Your task to perform on an android device: open app "Microsoft Excel" Image 0: 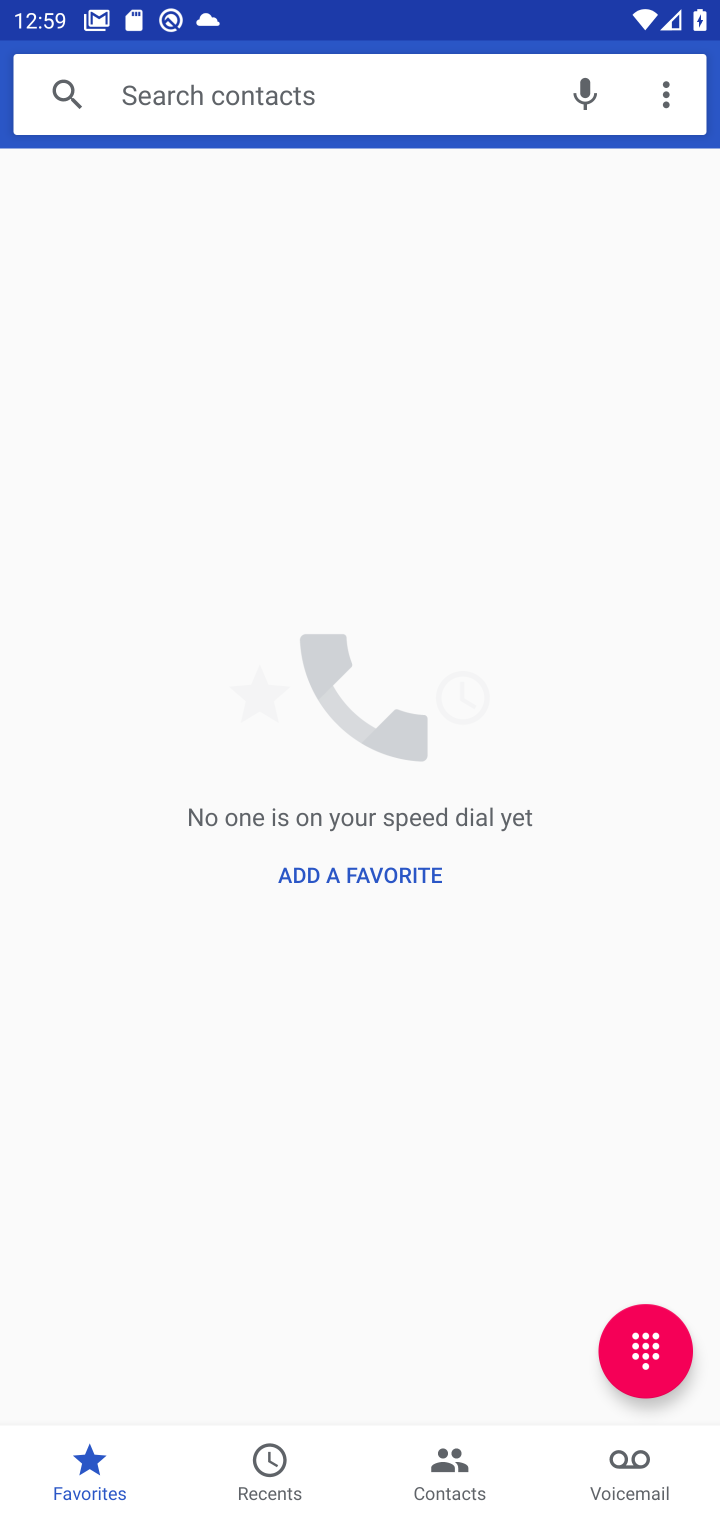
Step 0: press back button
Your task to perform on an android device: open app "Microsoft Excel" Image 1: 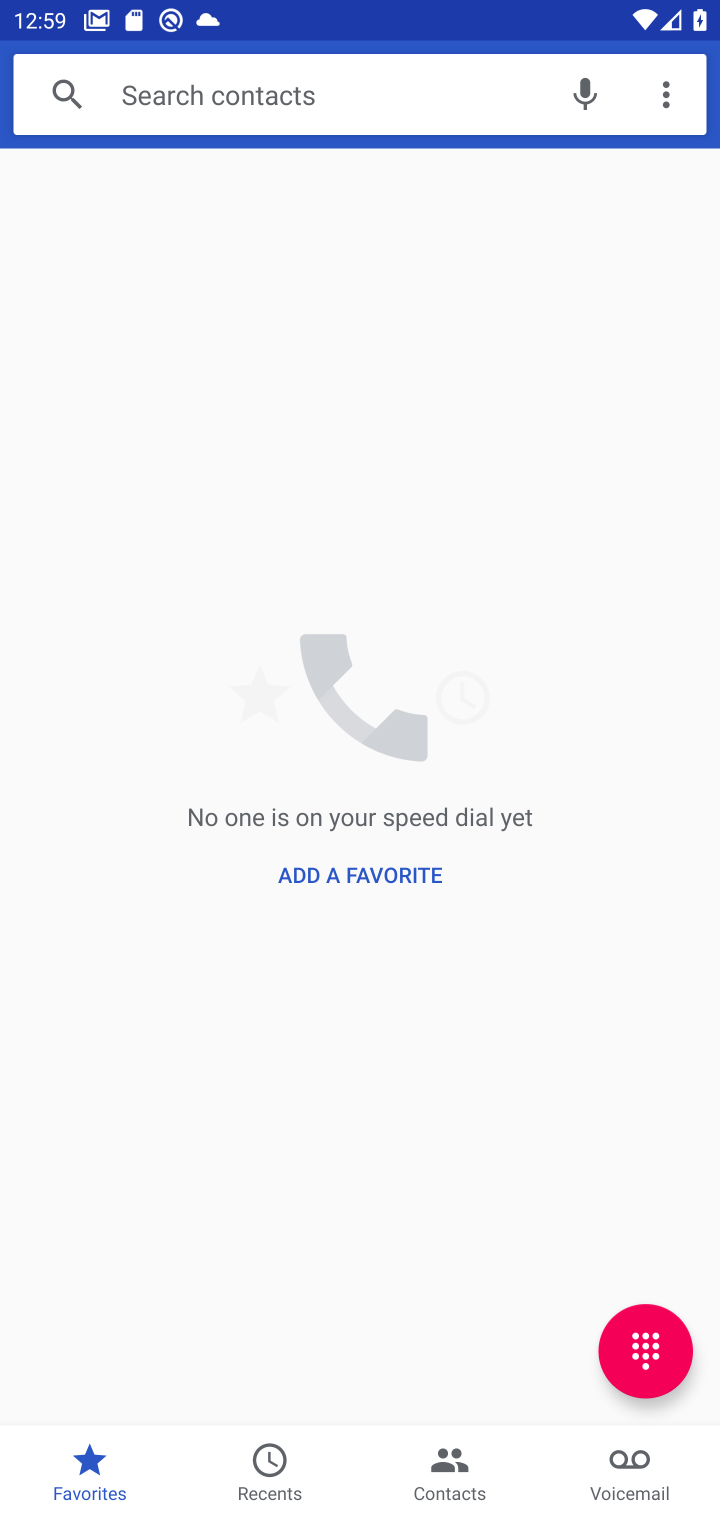
Step 1: press back button
Your task to perform on an android device: open app "Microsoft Excel" Image 2: 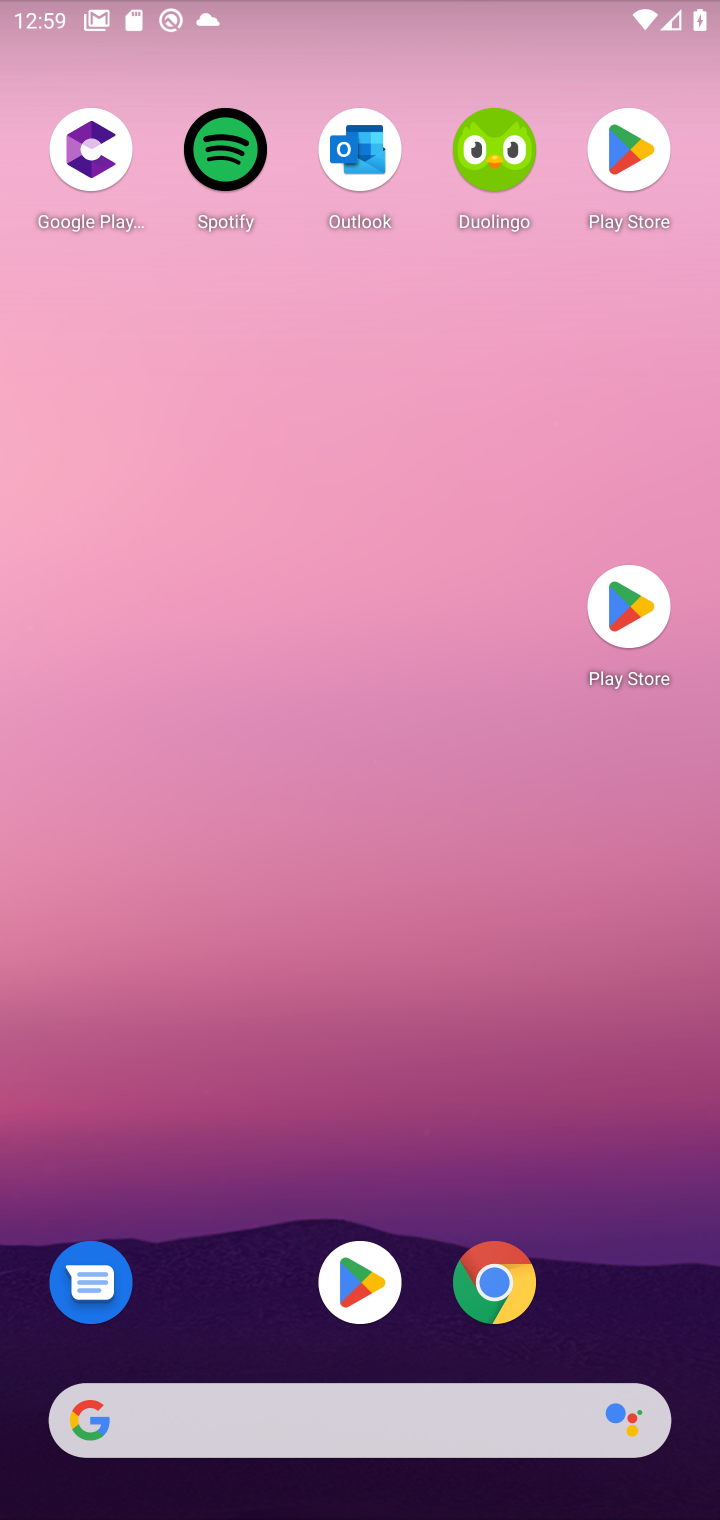
Step 2: press back button
Your task to perform on an android device: open app "Microsoft Excel" Image 3: 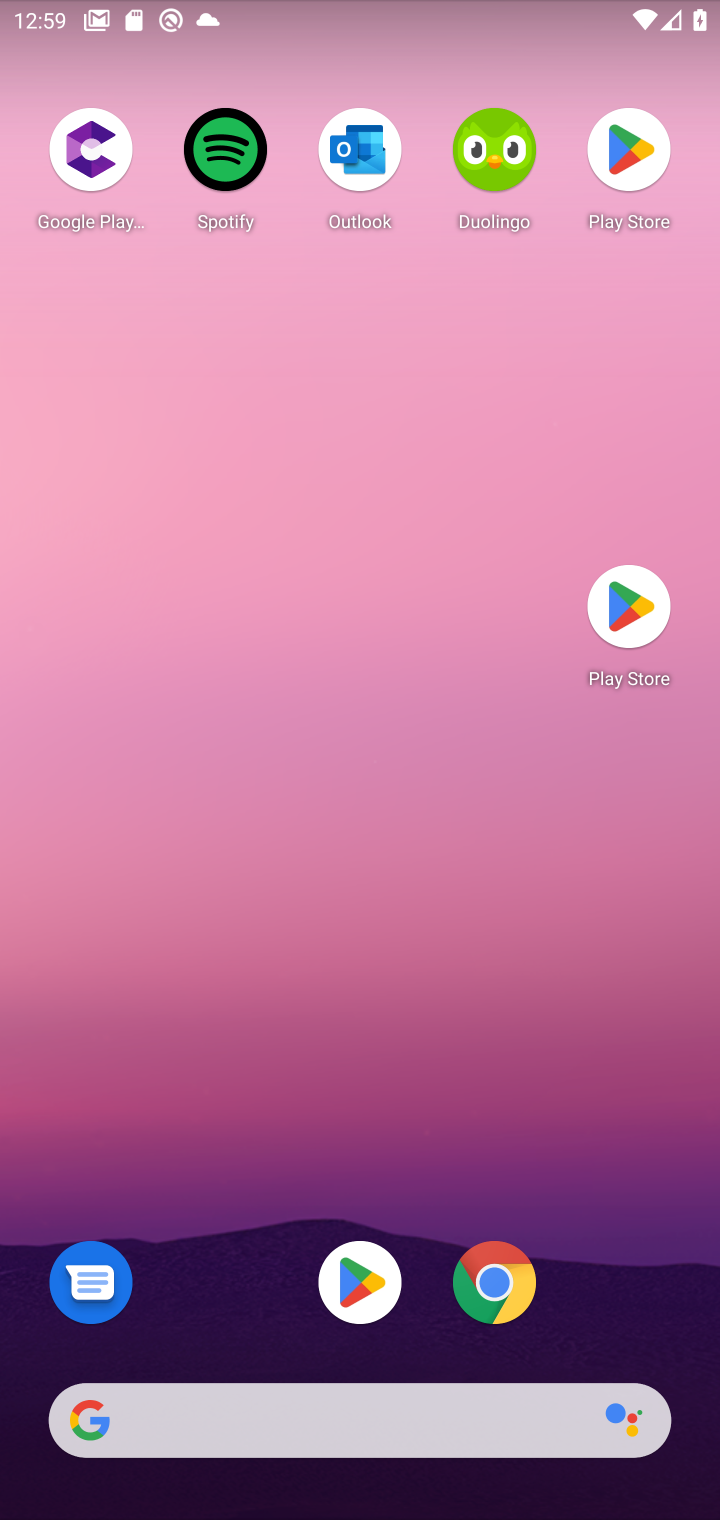
Step 3: press back button
Your task to perform on an android device: open app "Microsoft Excel" Image 4: 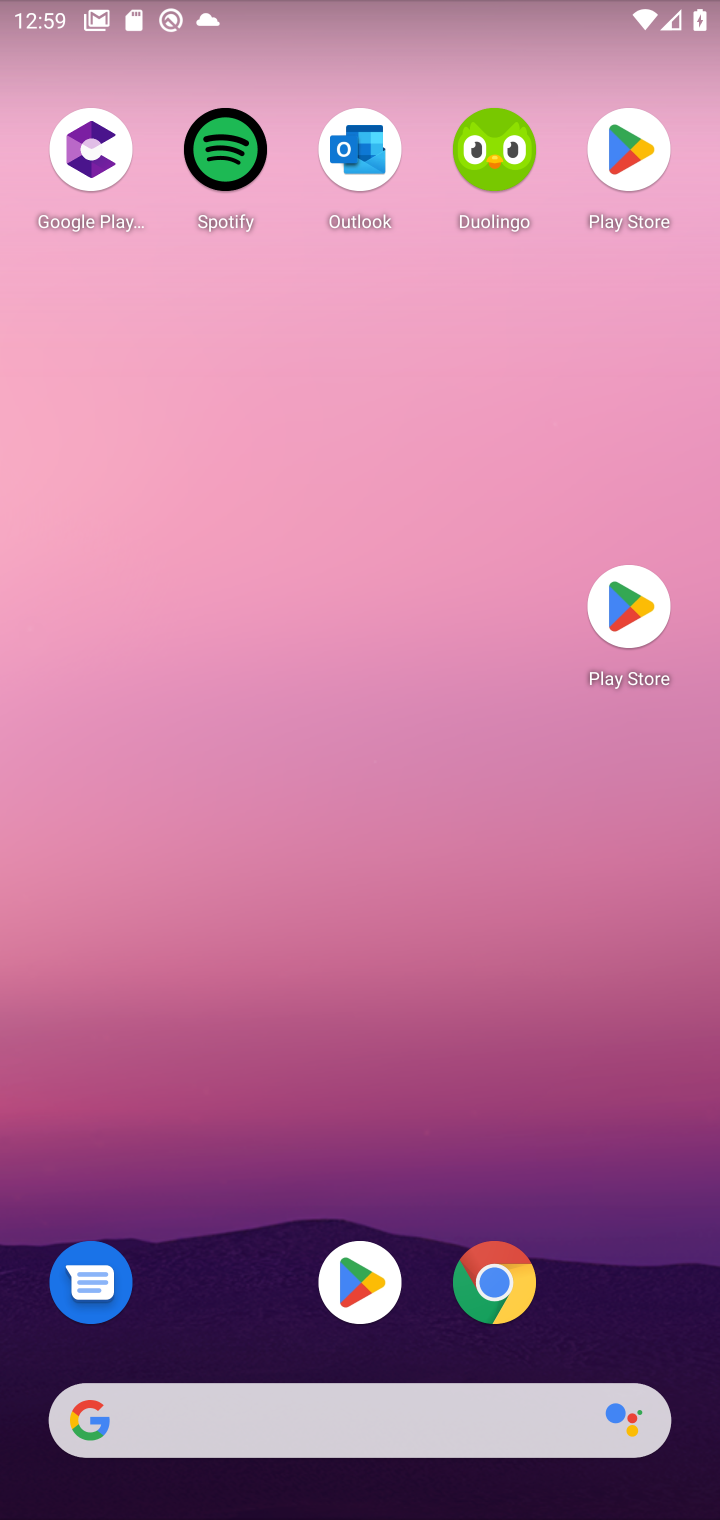
Step 4: press back button
Your task to perform on an android device: open app "Microsoft Excel" Image 5: 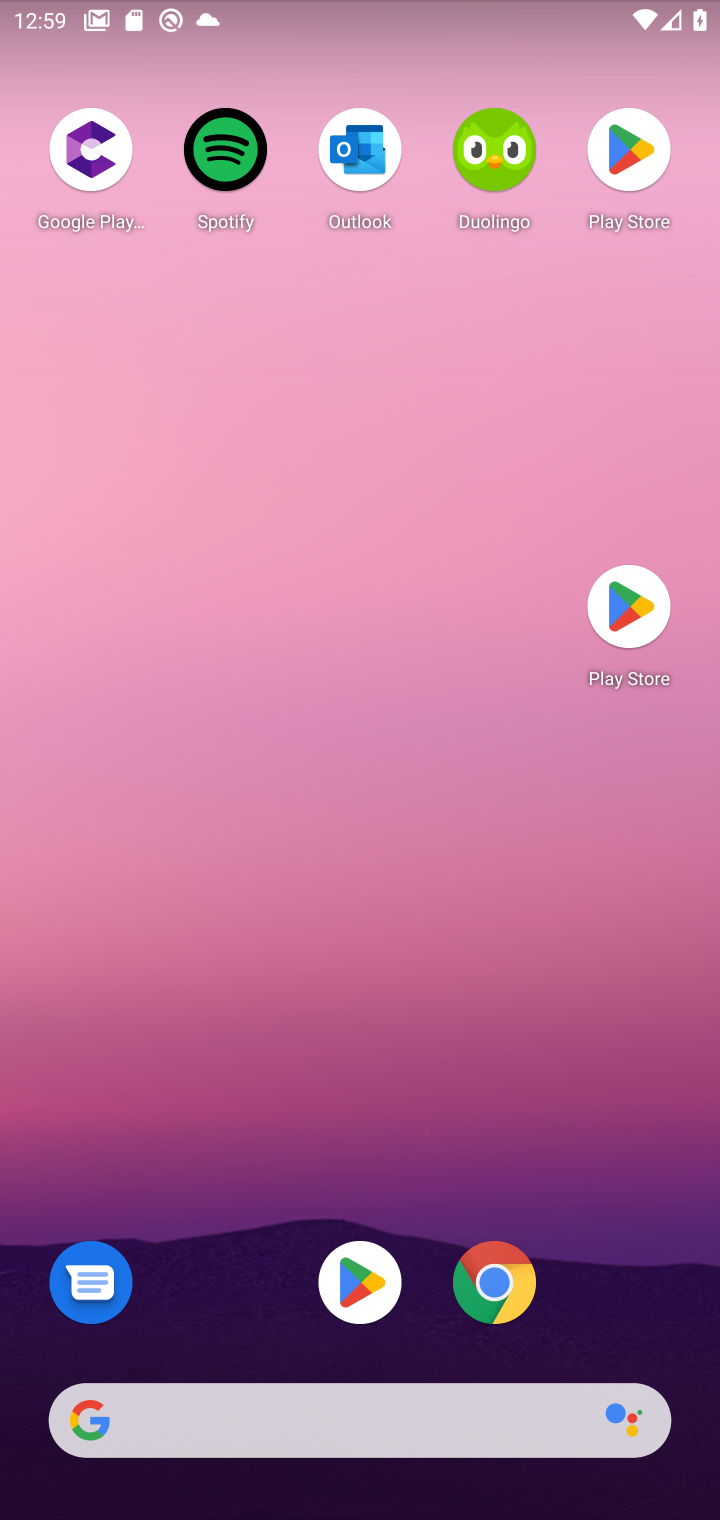
Step 5: drag from (314, 839) to (289, 54)
Your task to perform on an android device: open app "Microsoft Excel" Image 6: 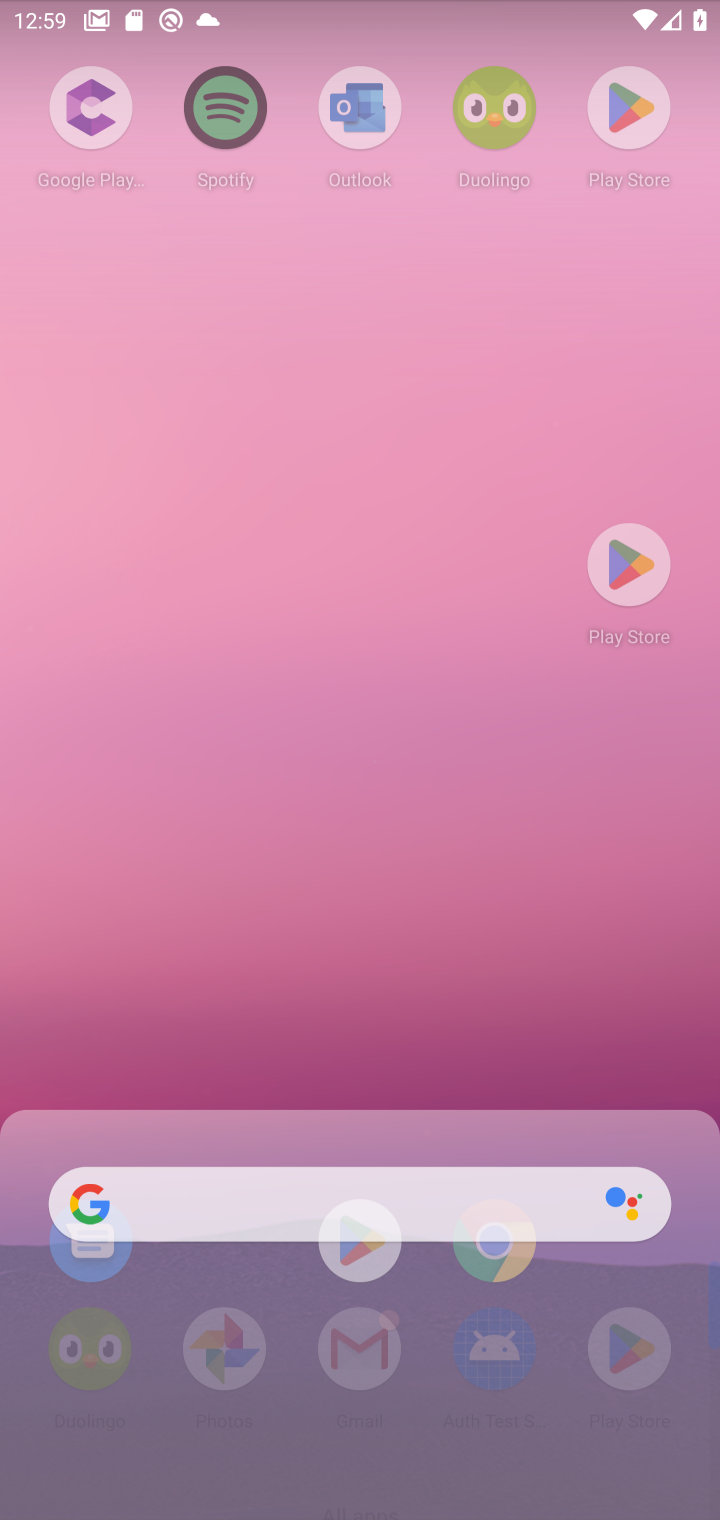
Step 6: click (396, 315)
Your task to perform on an android device: open app "Microsoft Excel" Image 7: 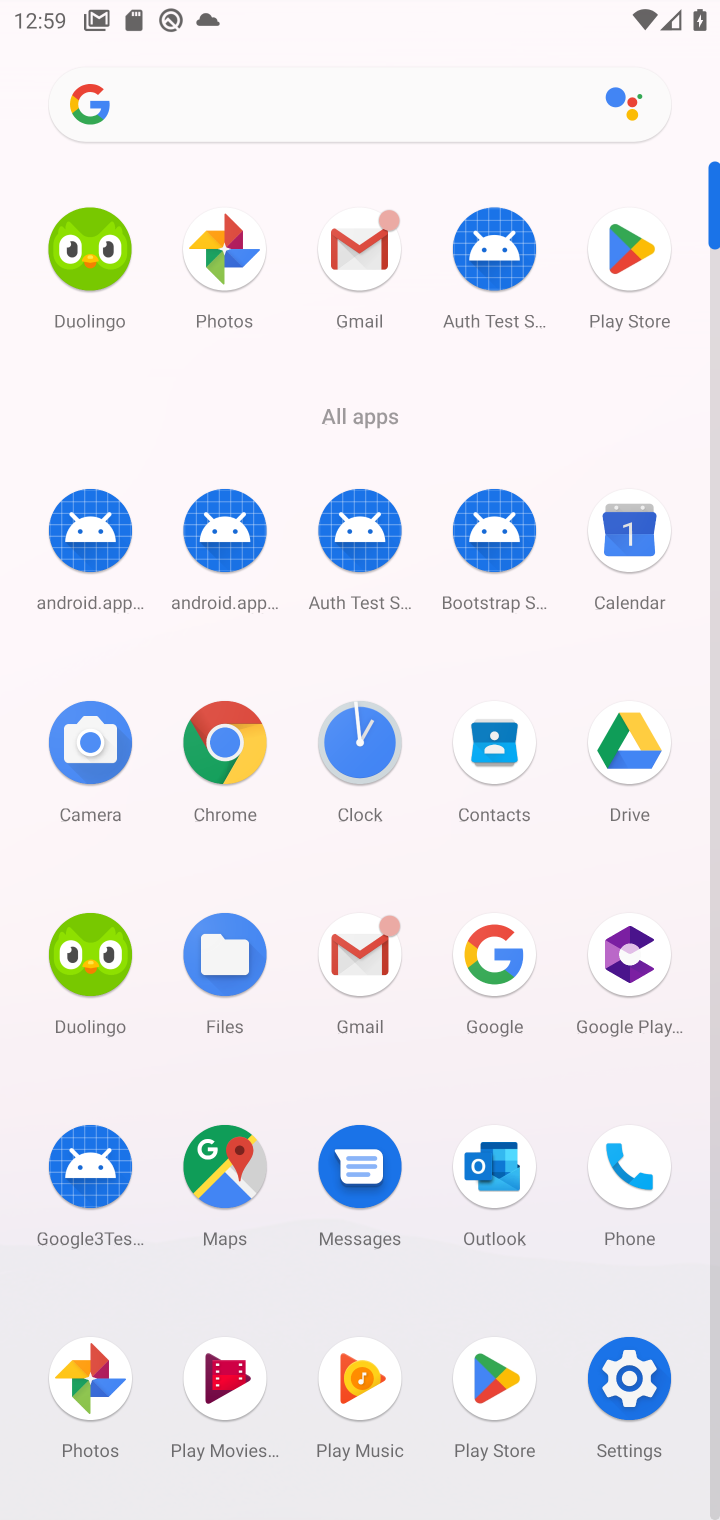
Step 7: click (630, 250)
Your task to perform on an android device: open app "Microsoft Excel" Image 8: 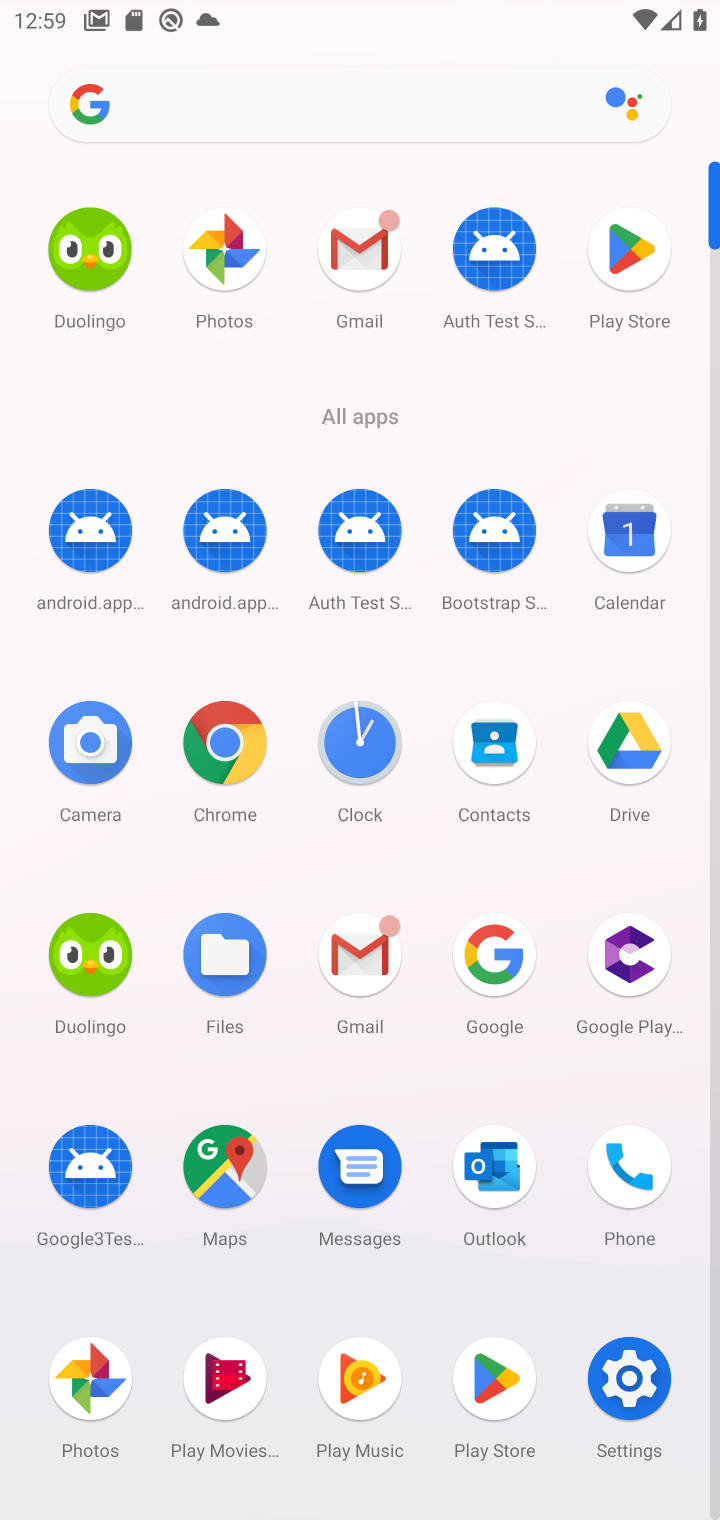
Step 8: click (632, 258)
Your task to perform on an android device: open app "Microsoft Excel" Image 9: 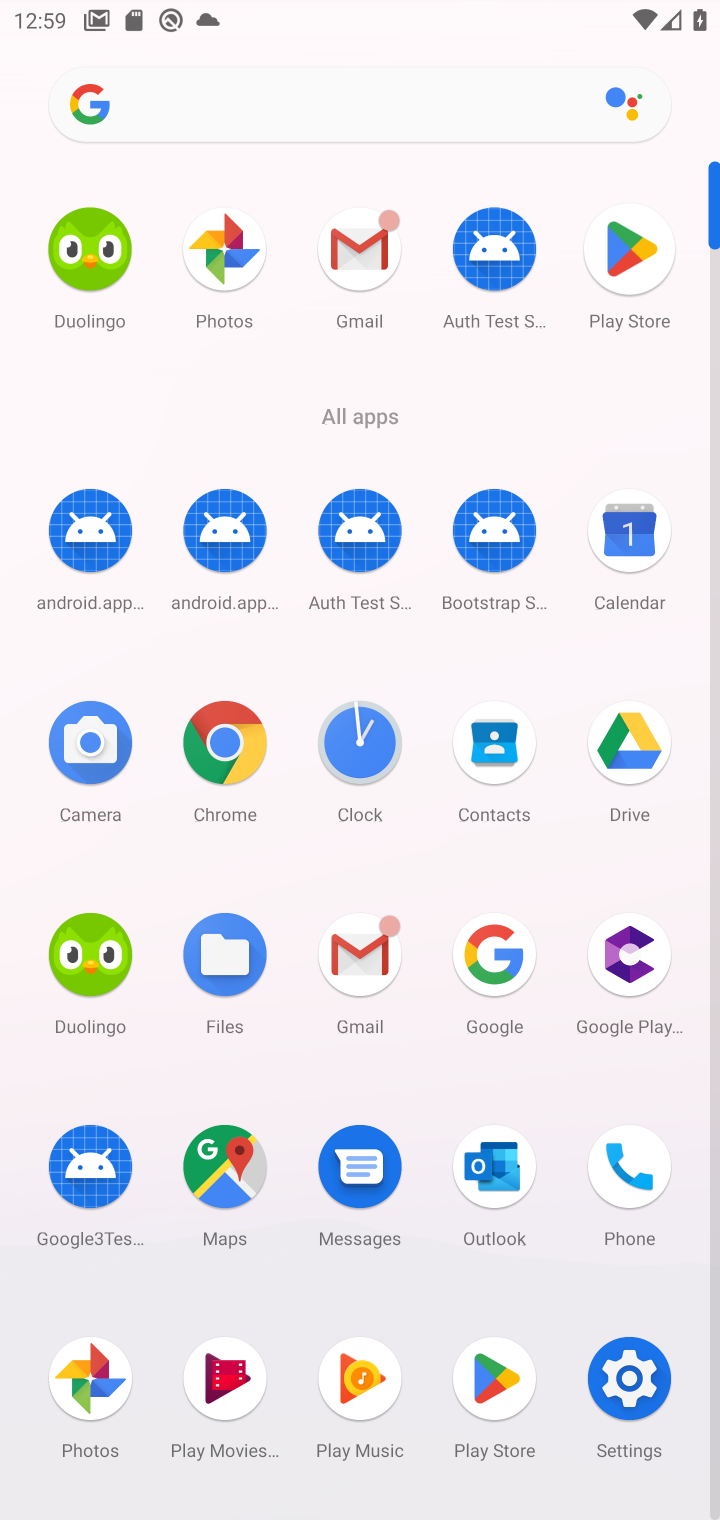
Step 9: click (636, 260)
Your task to perform on an android device: open app "Microsoft Excel" Image 10: 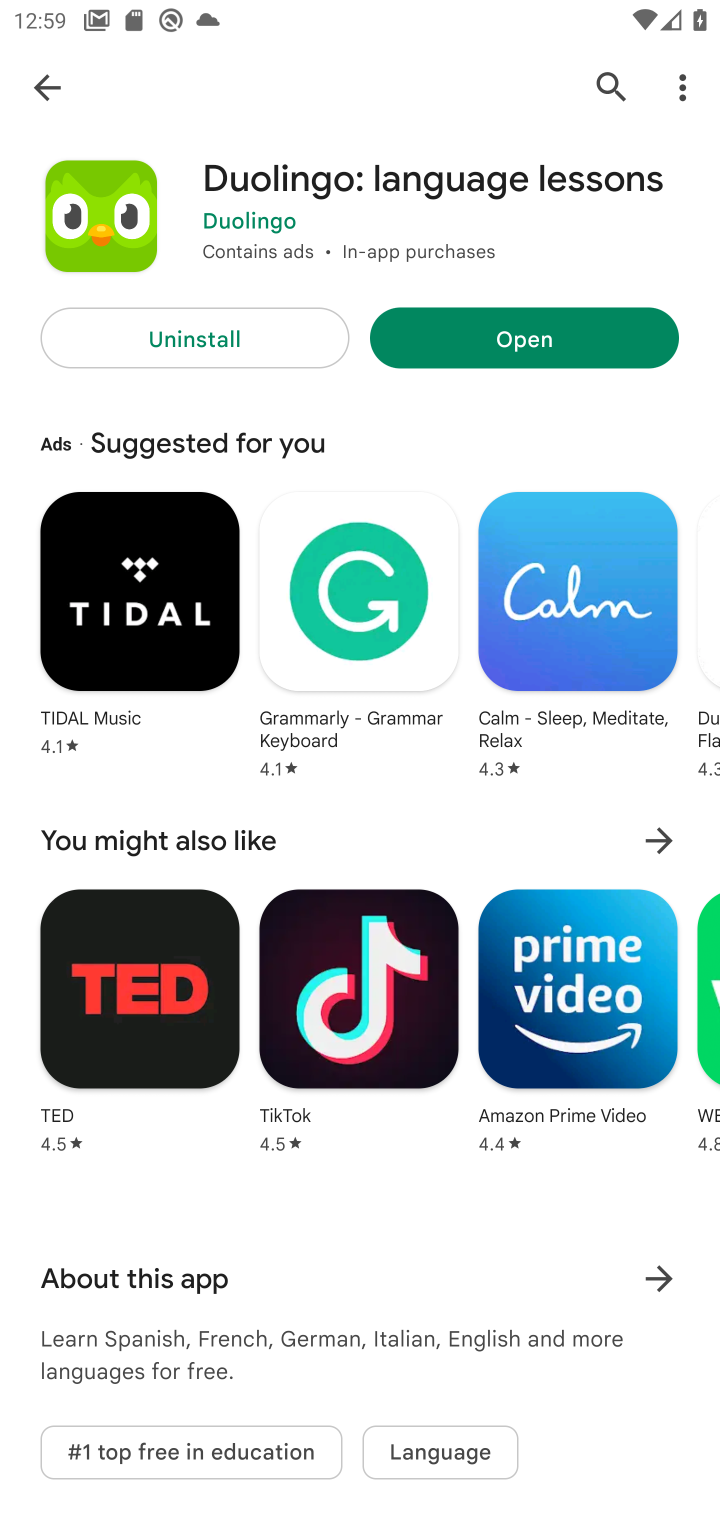
Step 10: click (630, 265)
Your task to perform on an android device: open app "Microsoft Excel" Image 11: 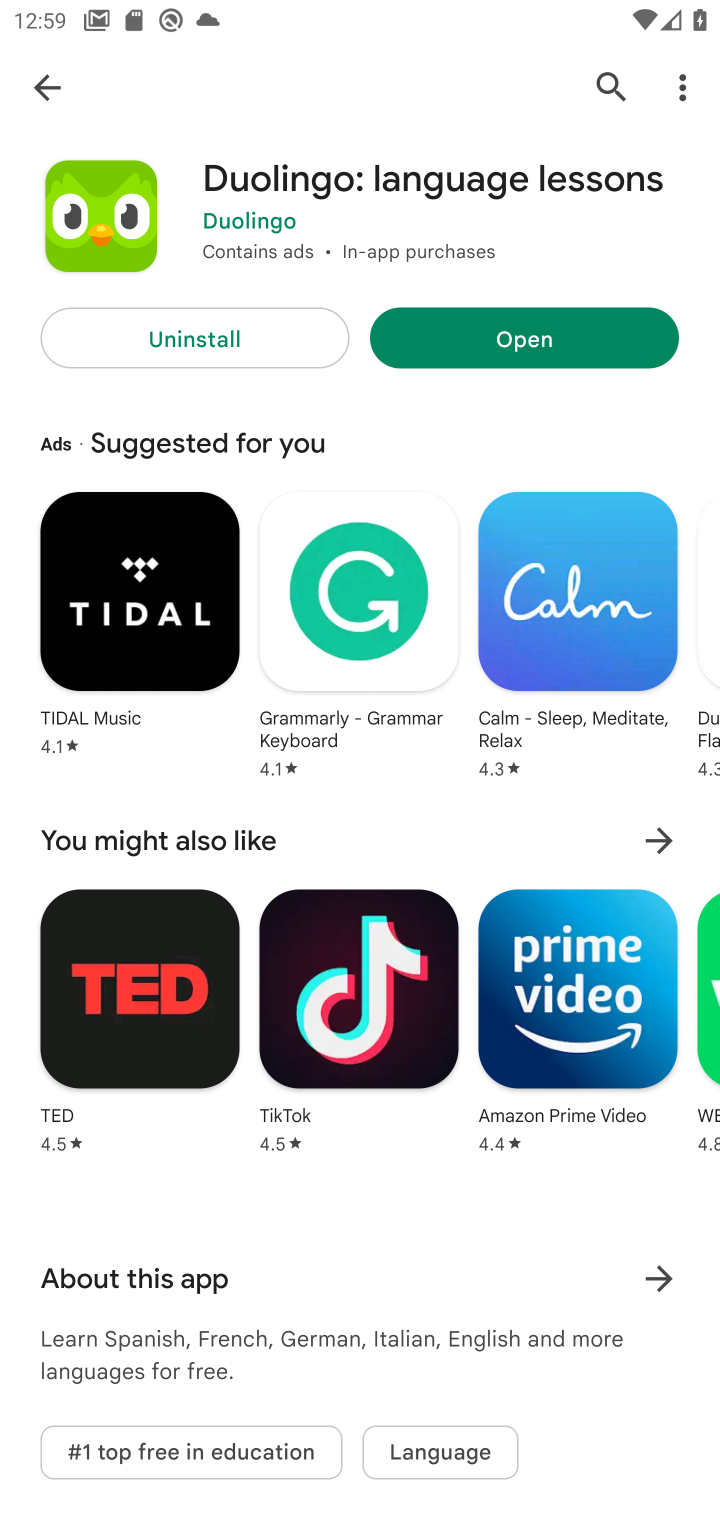
Step 11: click (58, 77)
Your task to perform on an android device: open app "Microsoft Excel" Image 12: 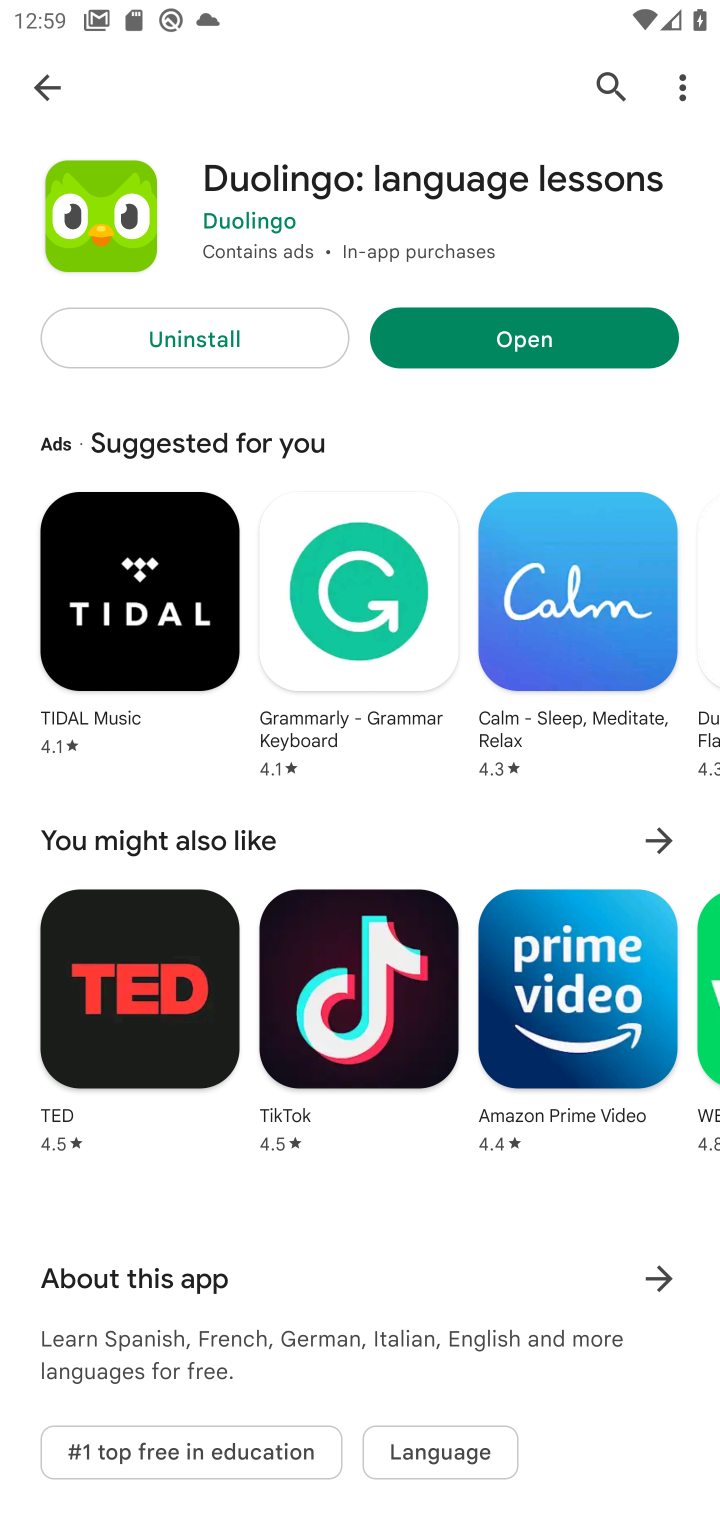
Step 12: click (56, 77)
Your task to perform on an android device: open app "Microsoft Excel" Image 13: 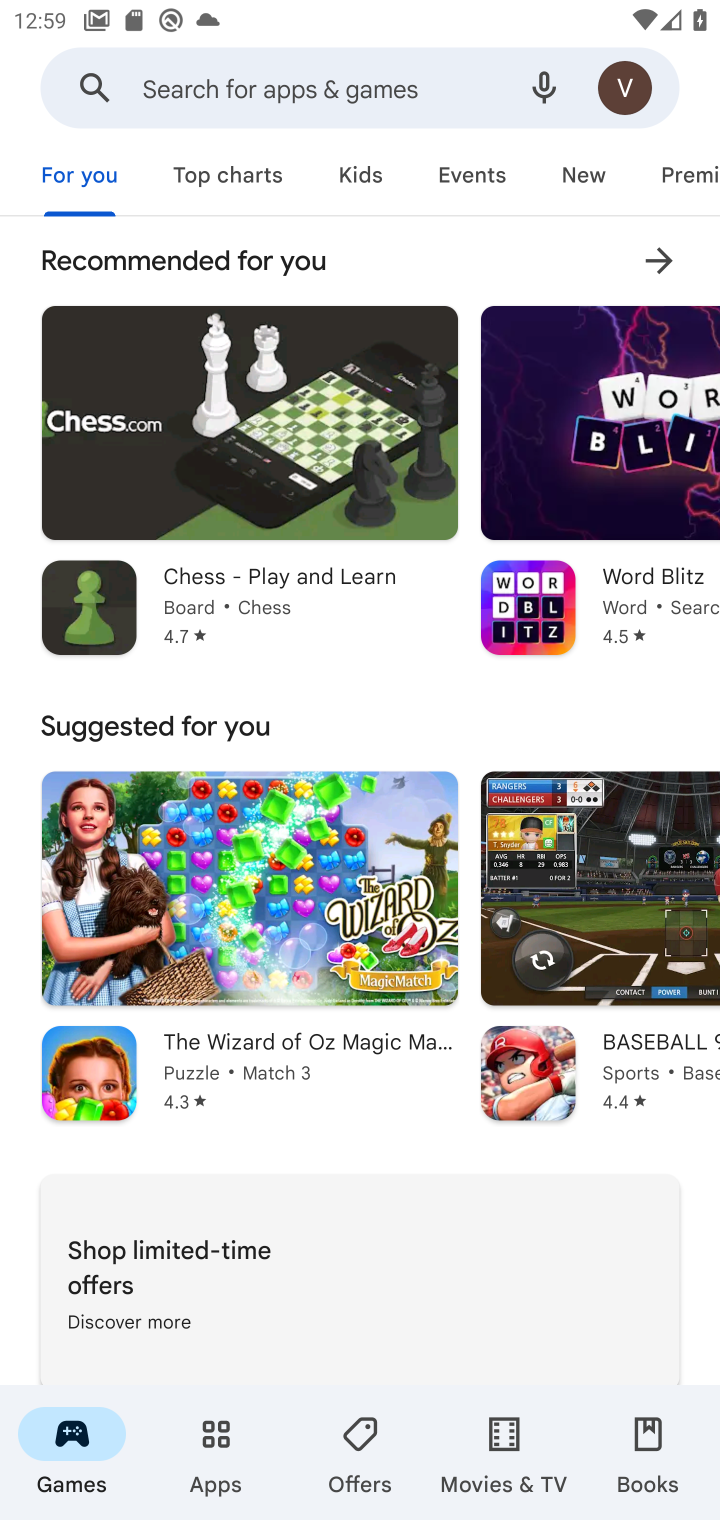
Step 13: click (168, 96)
Your task to perform on an android device: open app "Microsoft Excel" Image 14: 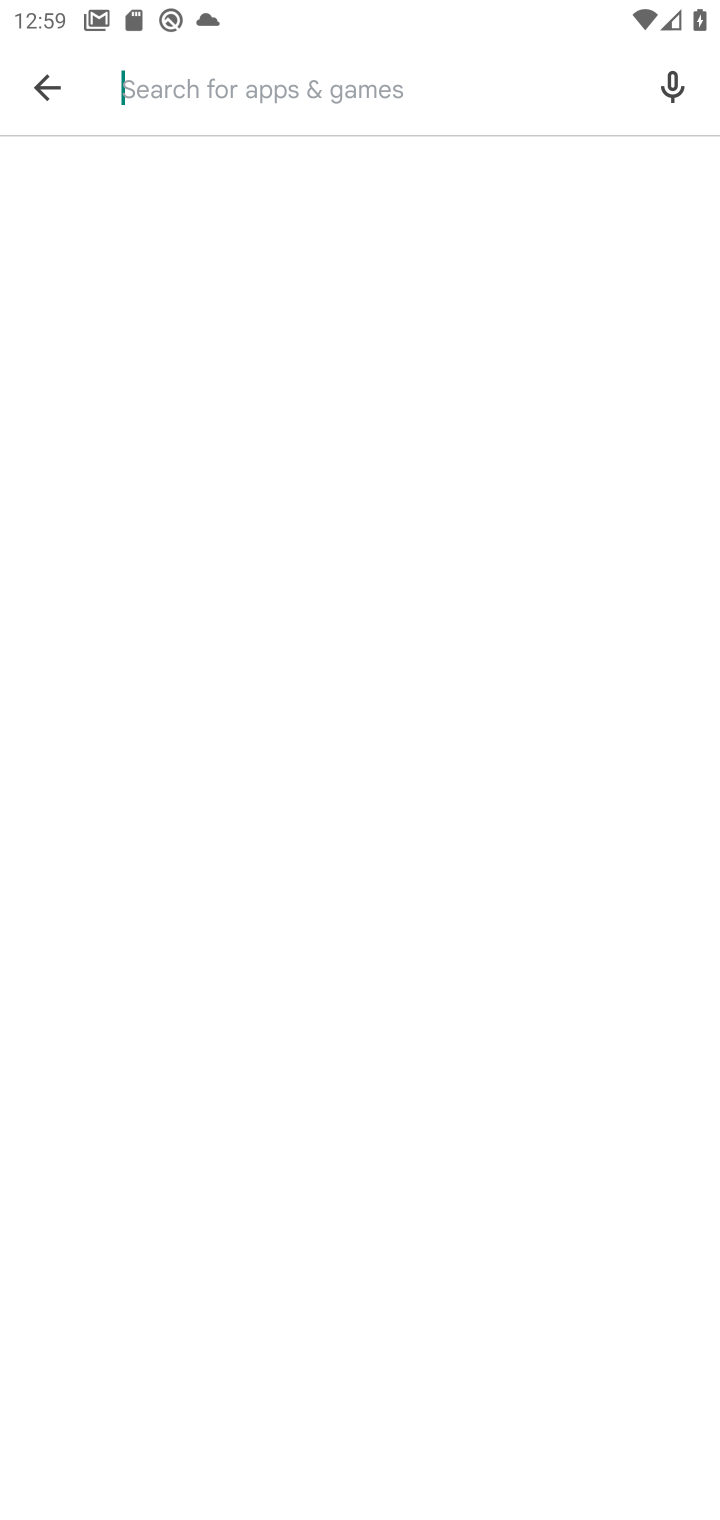
Step 14: click (174, 91)
Your task to perform on an android device: open app "Microsoft Excel" Image 15: 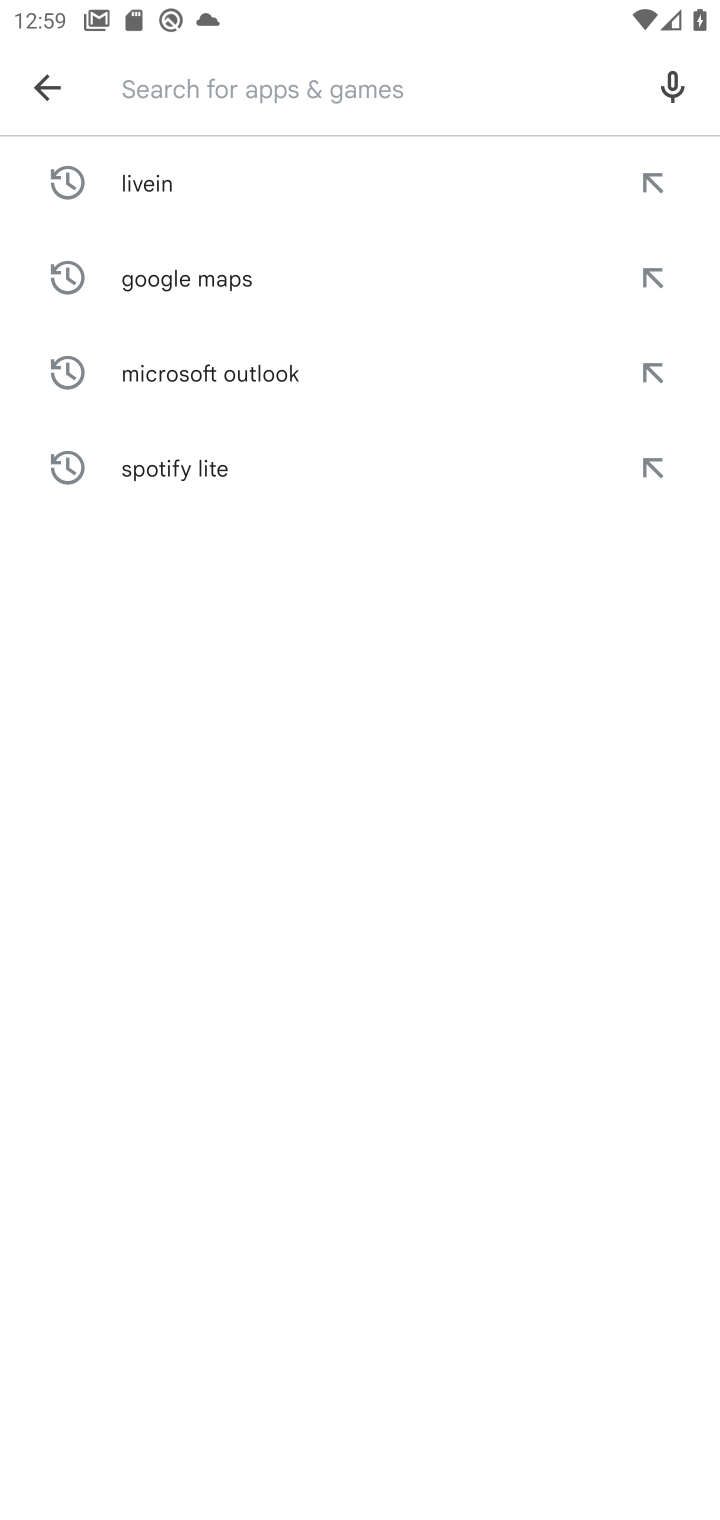
Step 15: click (174, 89)
Your task to perform on an android device: open app "Microsoft Excel" Image 16: 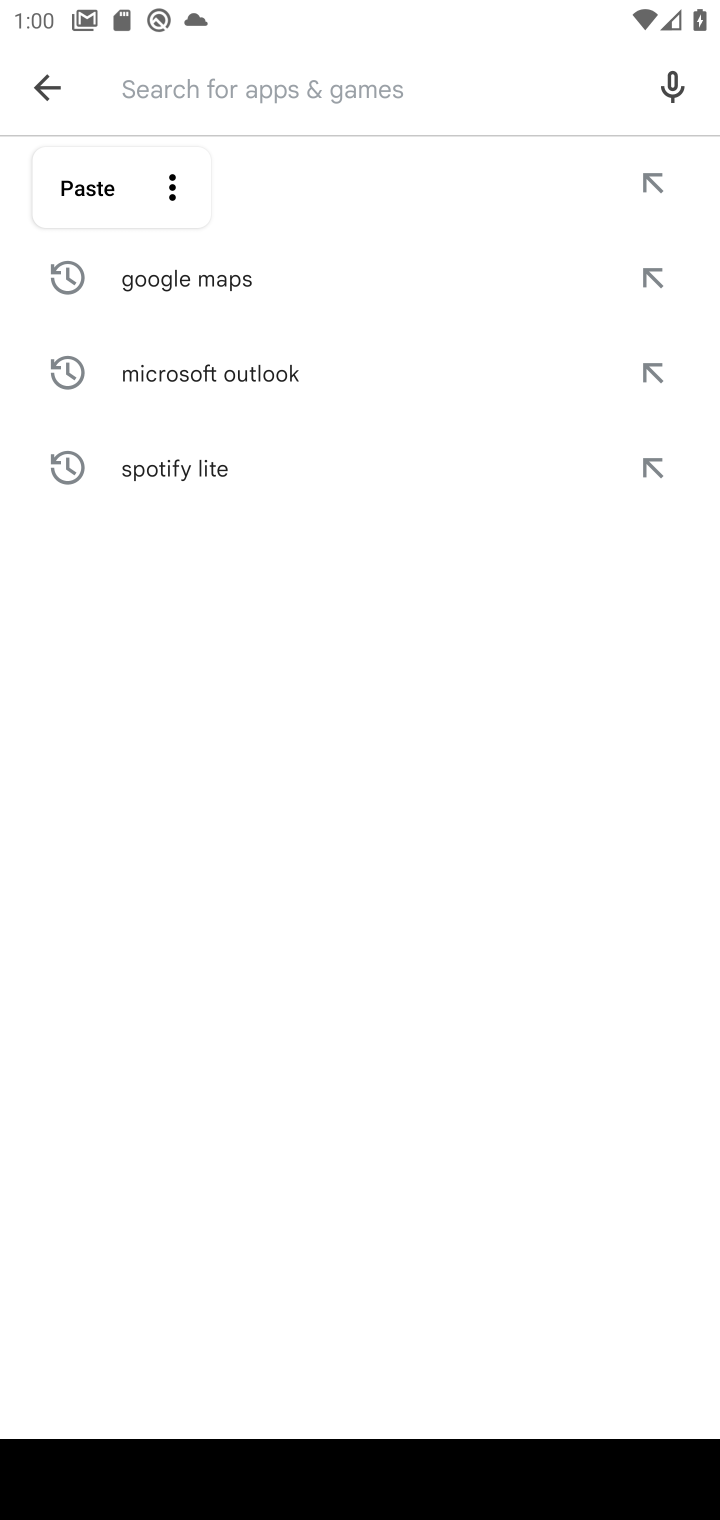
Step 16: type "microsoft Excel"
Your task to perform on an android device: open app "Microsoft Excel" Image 17: 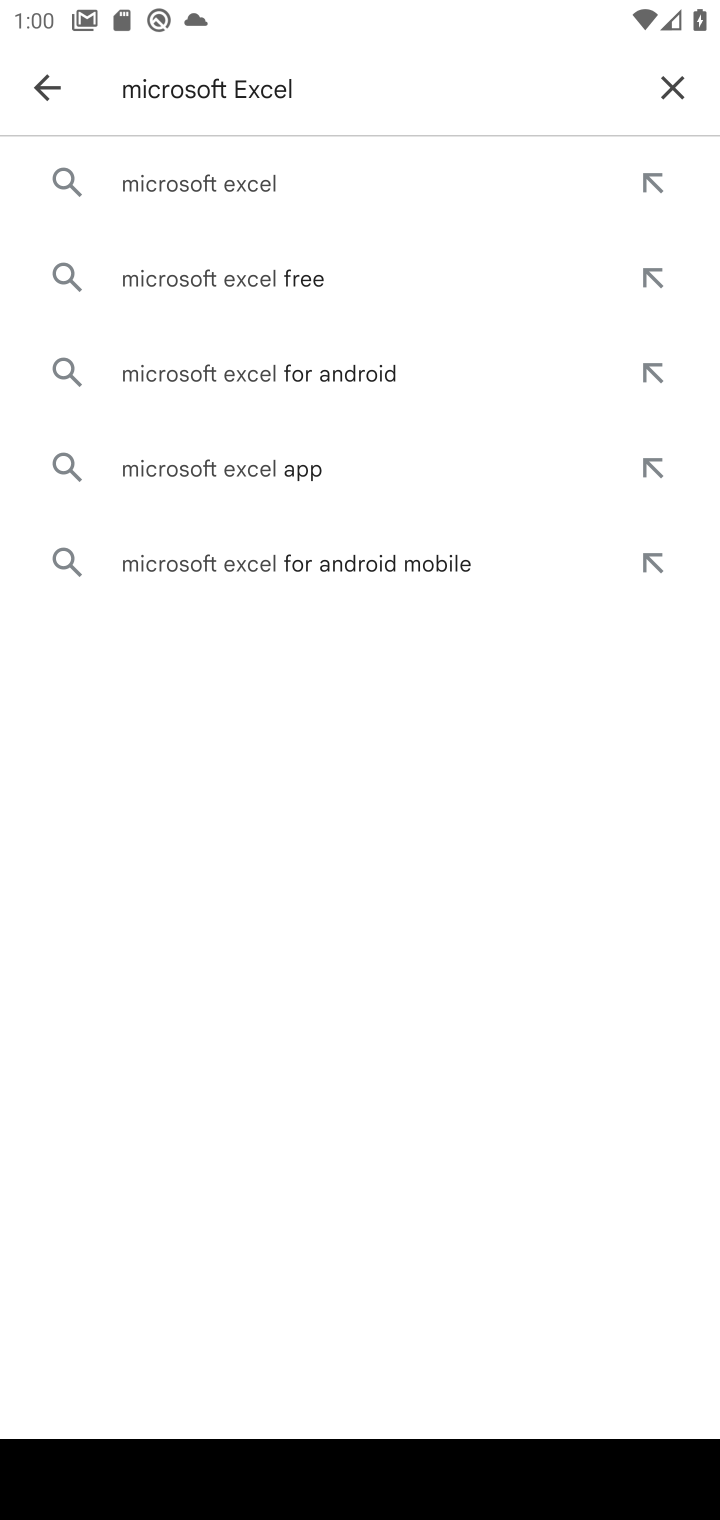
Step 17: click (239, 200)
Your task to perform on an android device: open app "Microsoft Excel" Image 18: 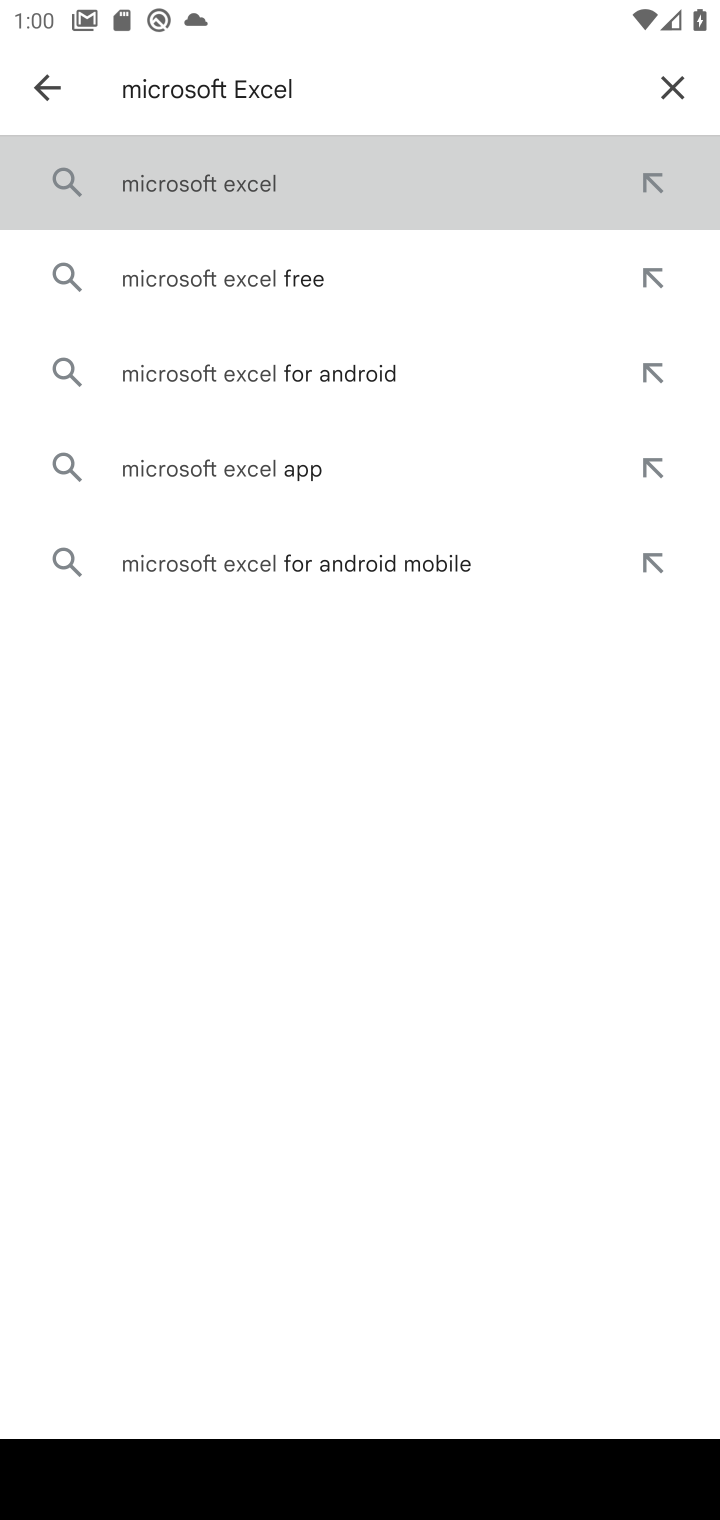
Step 18: click (224, 190)
Your task to perform on an android device: open app "Microsoft Excel" Image 19: 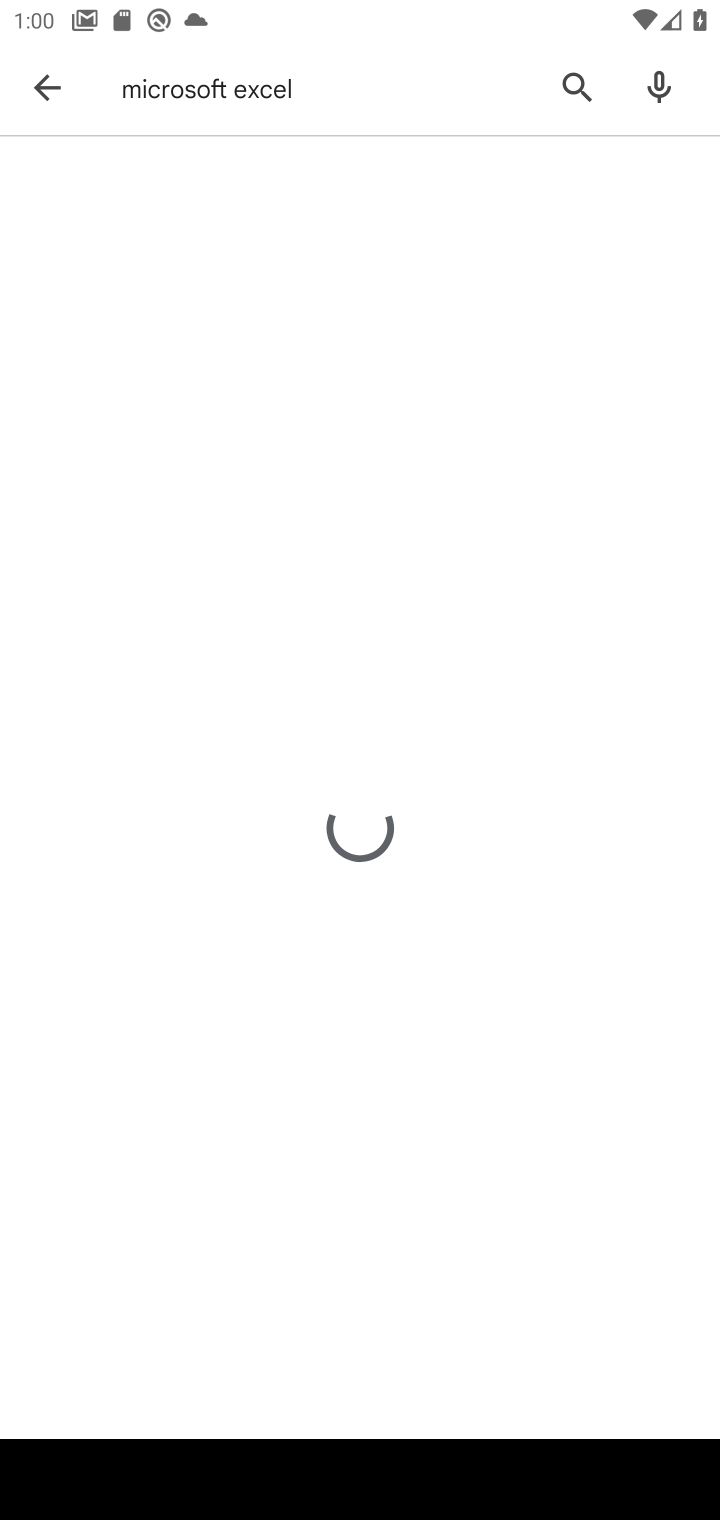
Step 19: click (151, 197)
Your task to perform on an android device: open app "Microsoft Excel" Image 20: 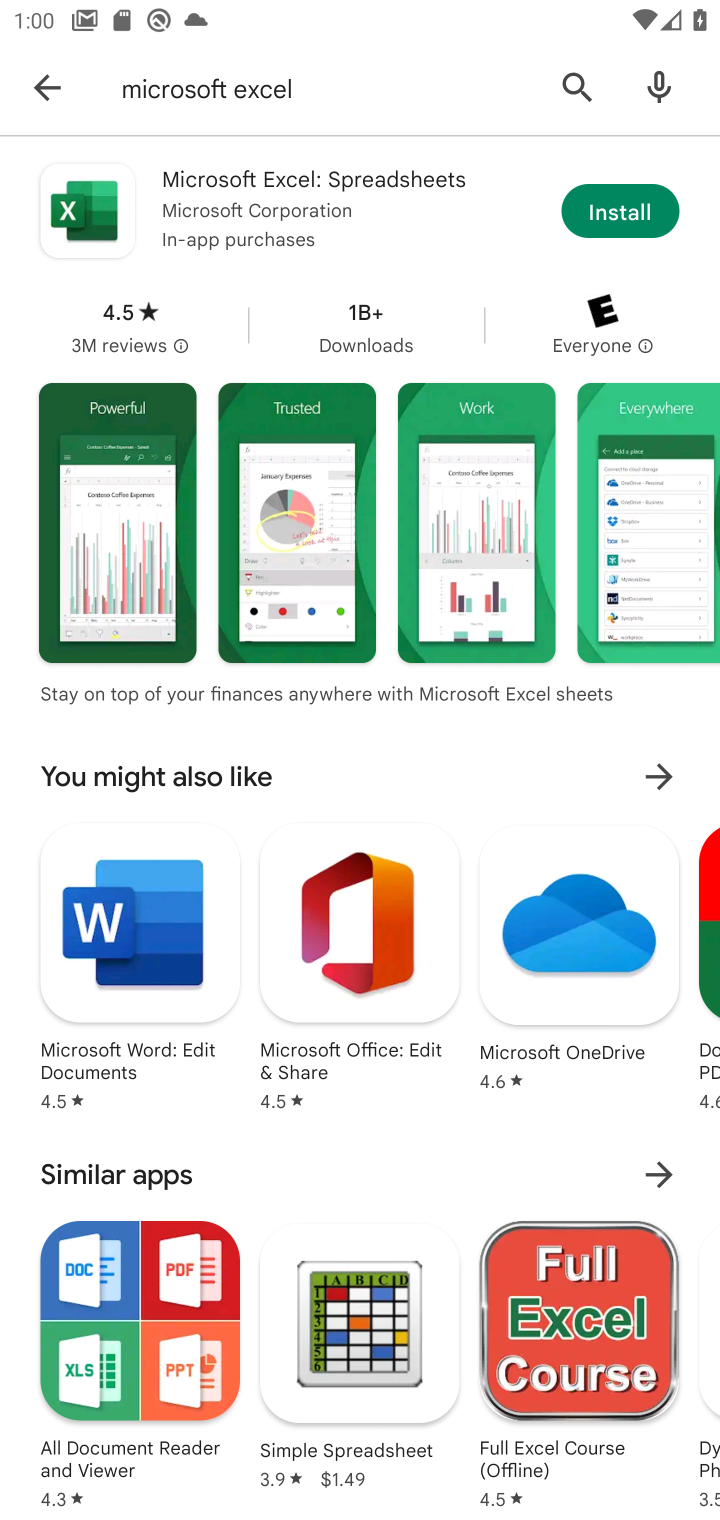
Step 20: click (610, 210)
Your task to perform on an android device: open app "Microsoft Excel" Image 21: 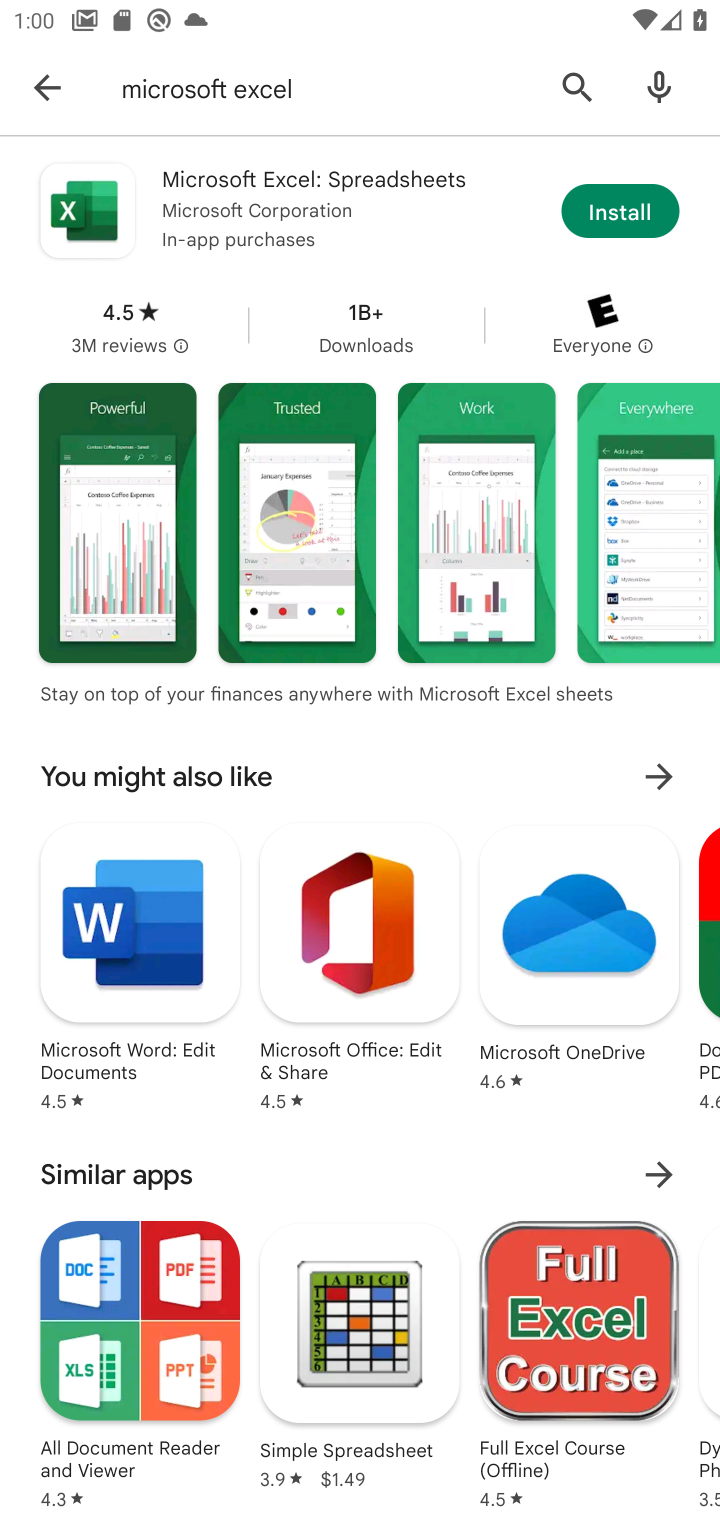
Step 21: click (614, 214)
Your task to perform on an android device: open app "Microsoft Excel" Image 22: 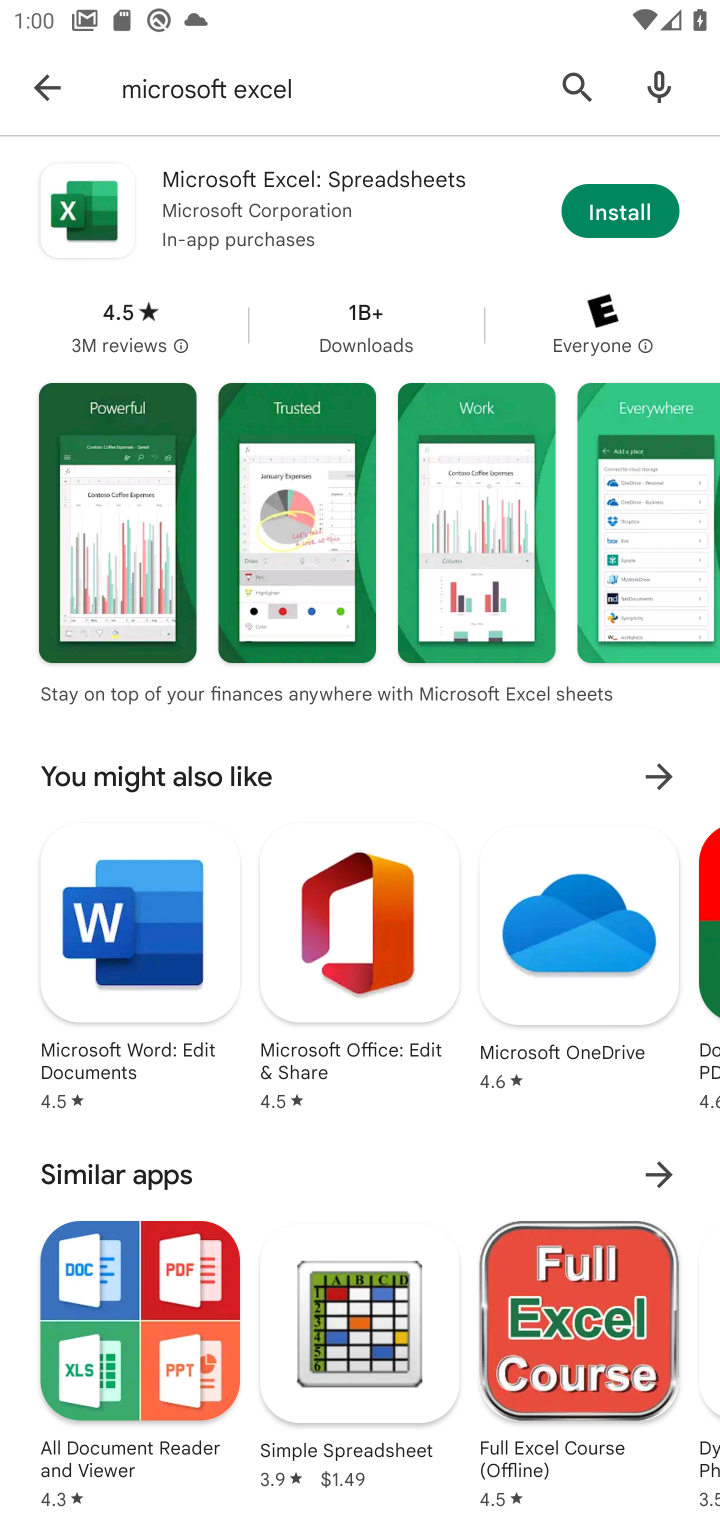
Step 22: click (630, 206)
Your task to perform on an android device: open app "Microsoft Excel" Image 23: 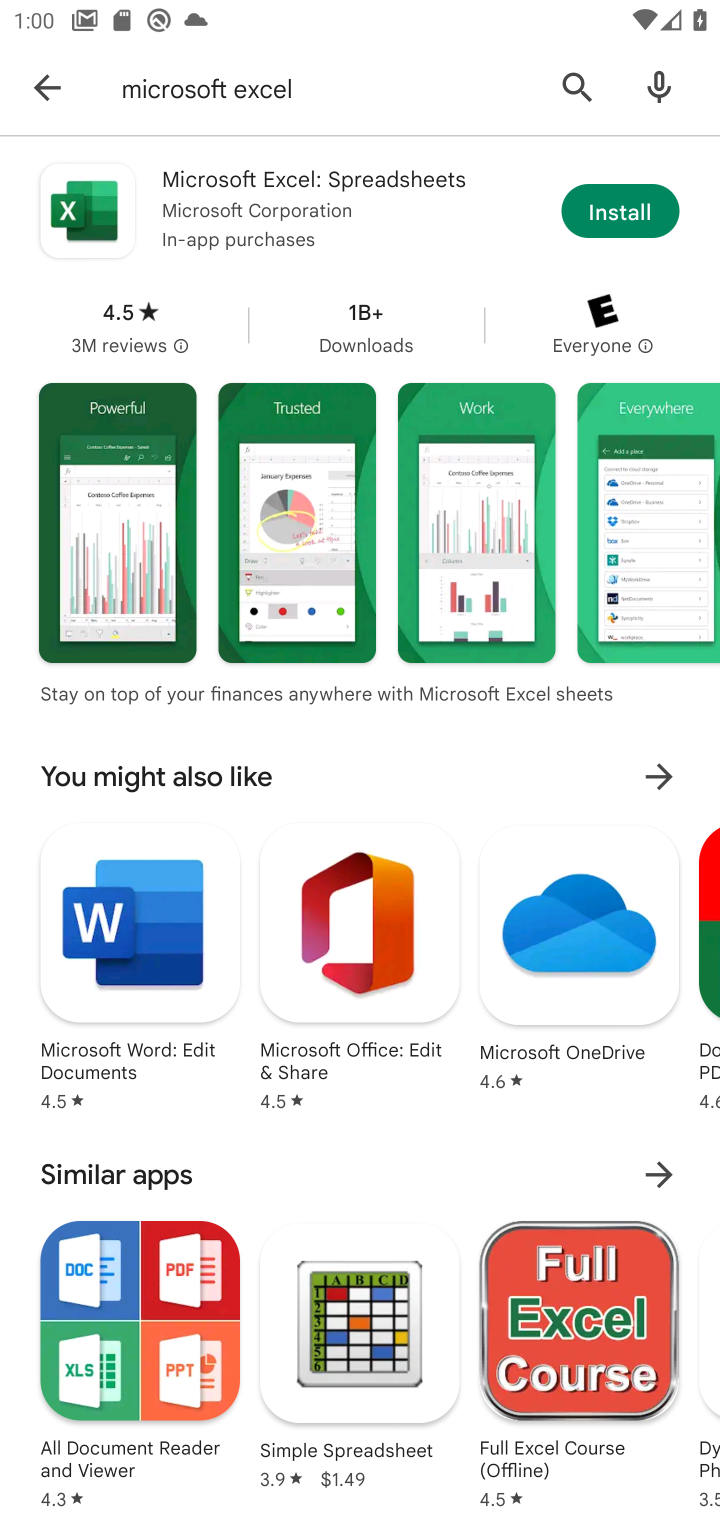
Step 23: click (630, 206)
Your task to perform on an android device: open app "Microsoft Excel" Image 24: 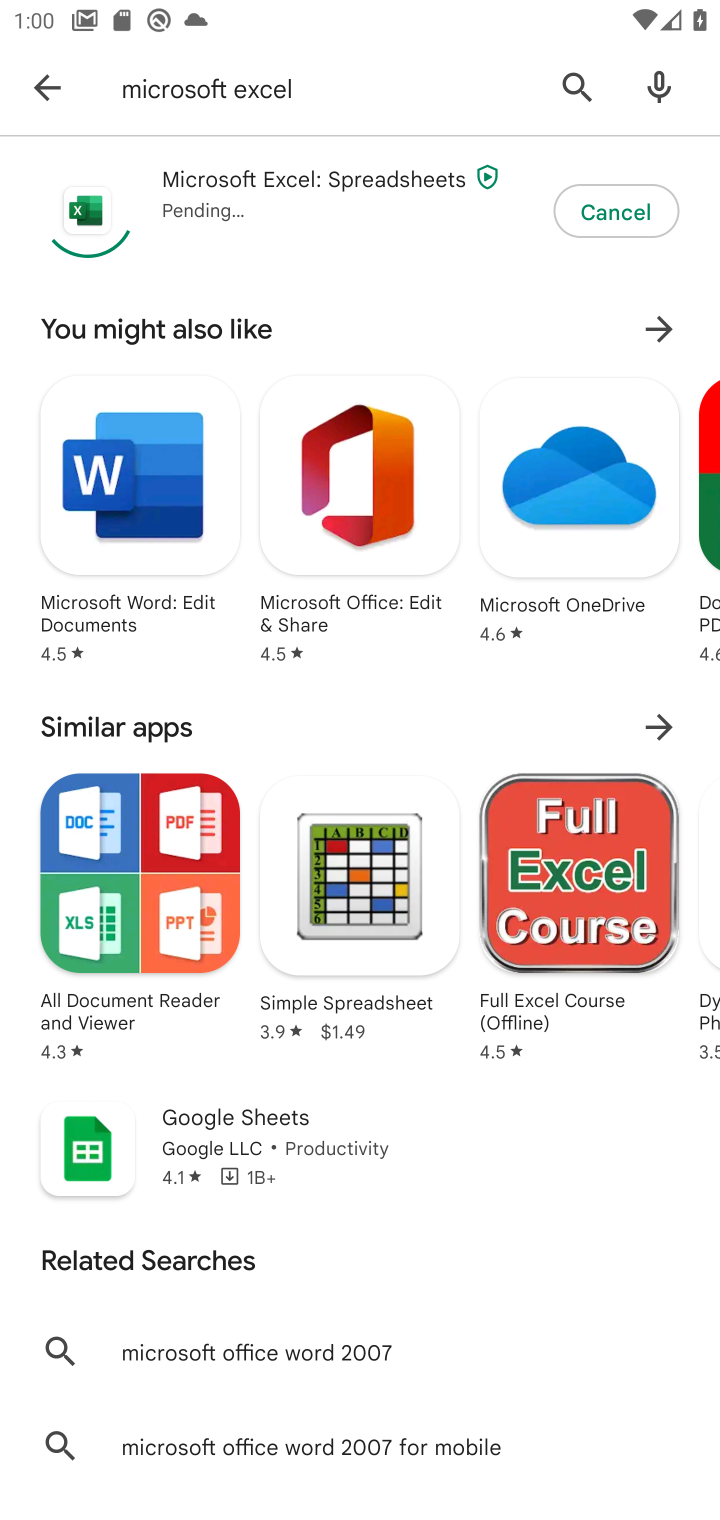
Step 24: click (644, 205)
Your task to perform on an android device: open app "Microsoft Excel" Image 25: 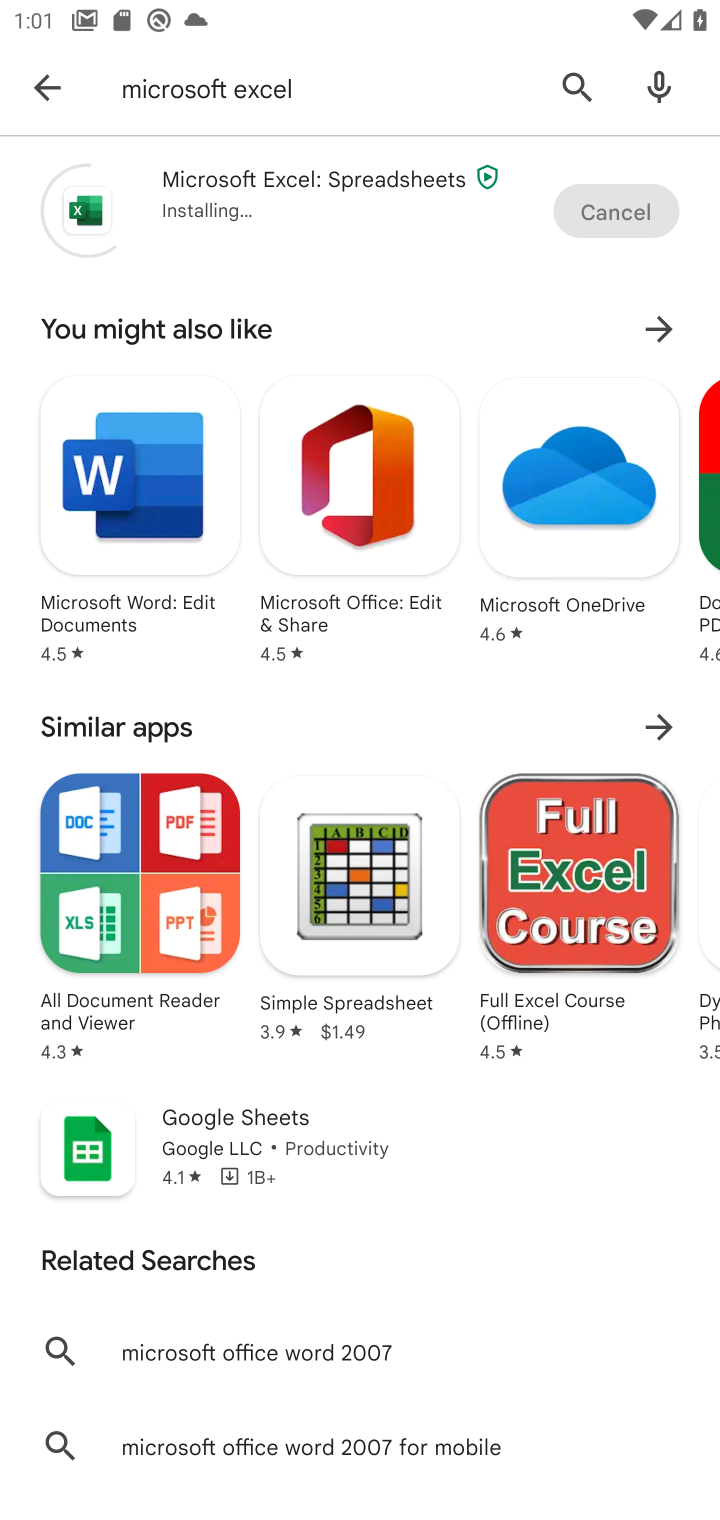
Step 25: task complete